Your task to perform on an android device: Check the news Image 0: 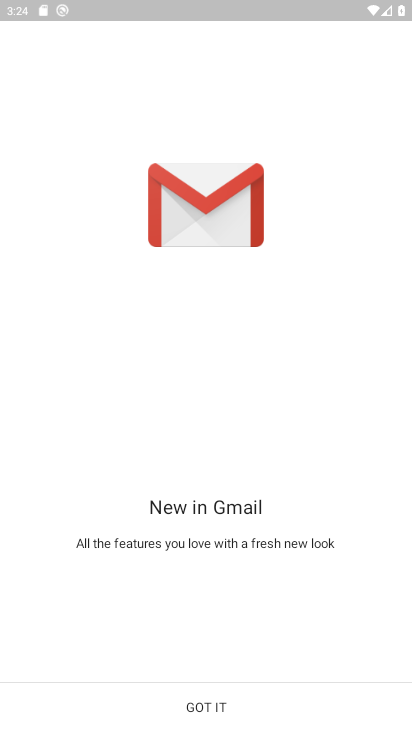
Step 0: press home button
Your task to perform on an android device: Check the news Image 1: 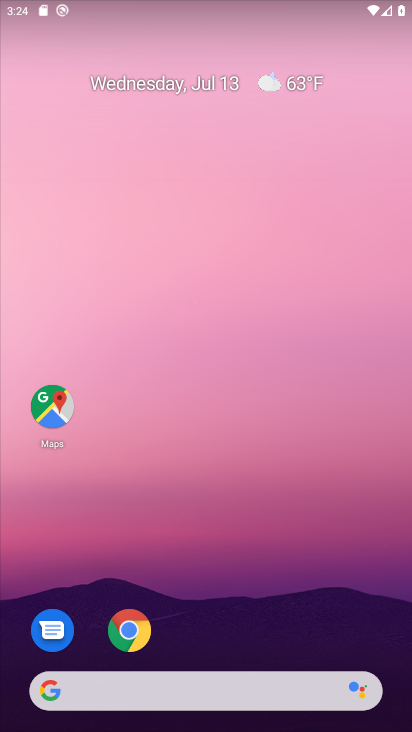
Step 1: click (159, 696)
Your task to perform on an android device: Check the news Image 2: 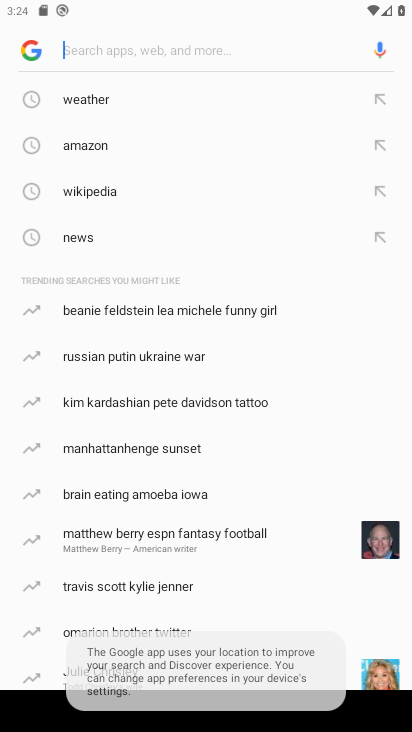
Step 2: click (31, 41)
Your task to perform on an android device: Check the news Image 3: 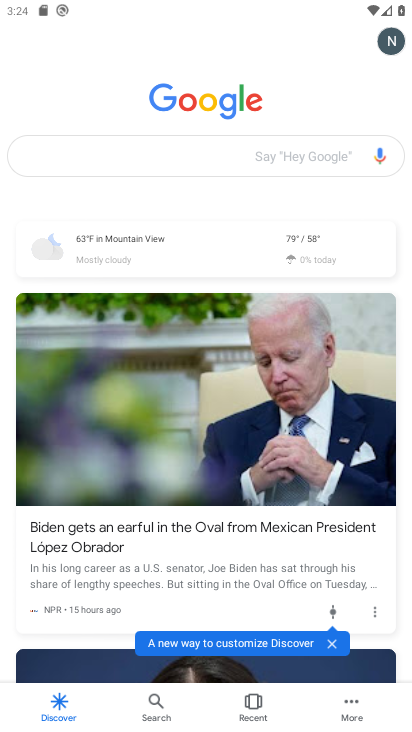
Step 3: task complete